Your task to perform on an android device: change the clock display to analog Image 0: 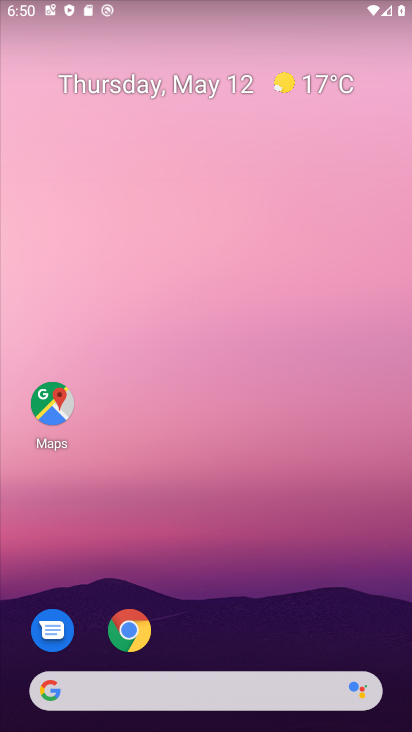
Step 0: drag from (358, 632) to (1, 320)
Your task to perform on an android device: change the clock display to analog Image 1: 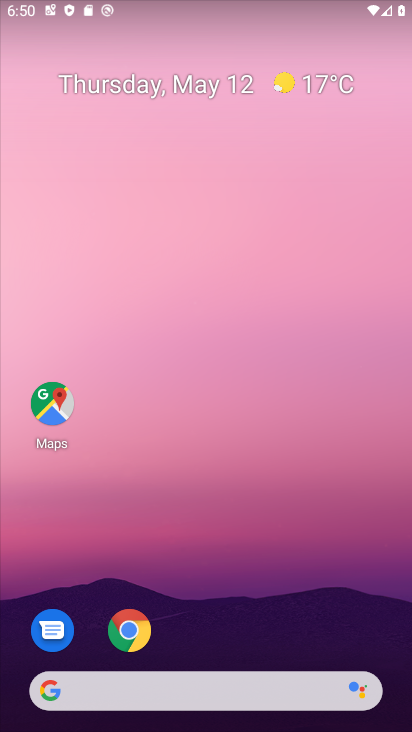
Step 1: drag from (350, 604) to (203, 91)
Your task to perform on an android device: change the clock display to analog Image 2: 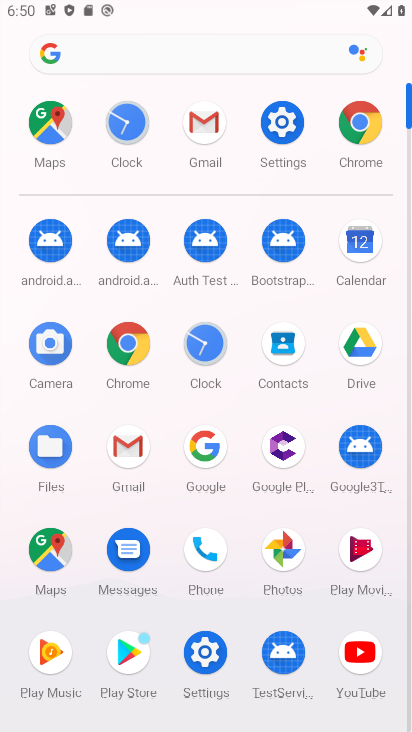
Step 2: click (137, 136)
Your task to perform on an android device: change the clock display to analog Image 3: 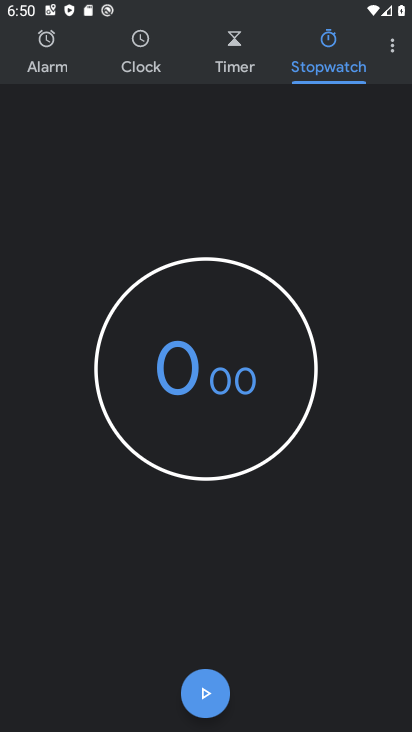
Step 3: click (386, 44)
Your task to perform on an android device: change the clock display to analog Image 4: 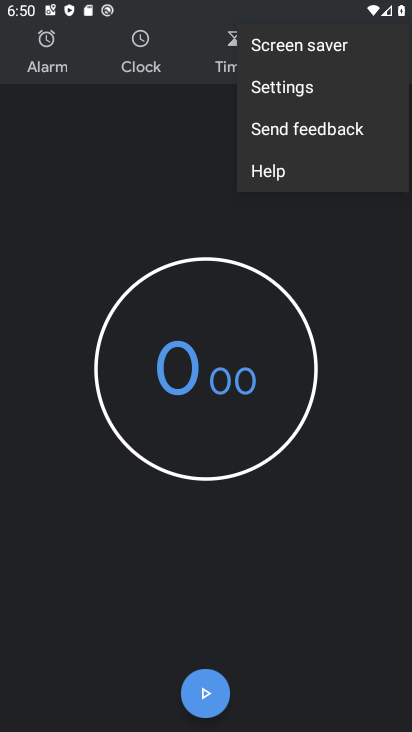
Step 4: click (336, 97)
Your task to perform on an android device: change the clock display to analog Image 5: 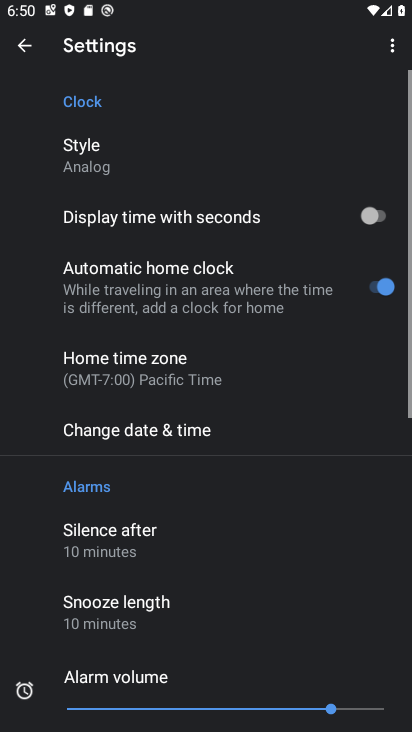
Step 5: click (117, 173)
Your task to perform on an android device: change the clock display to analog Image 6: 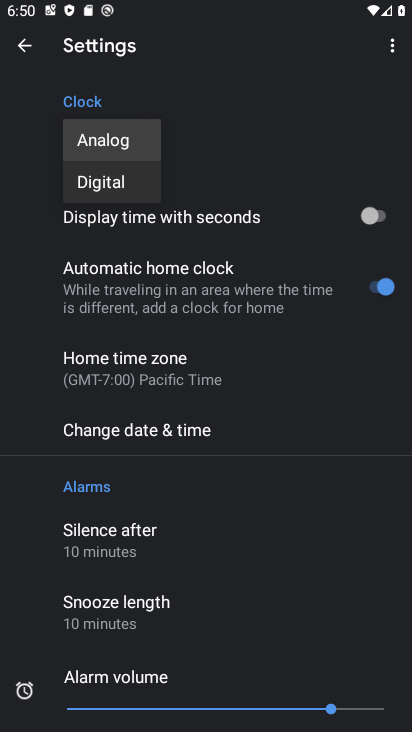
Step 6: click (141, 154)
Your task to perform on an android device: change the clock display to analog Image 7: 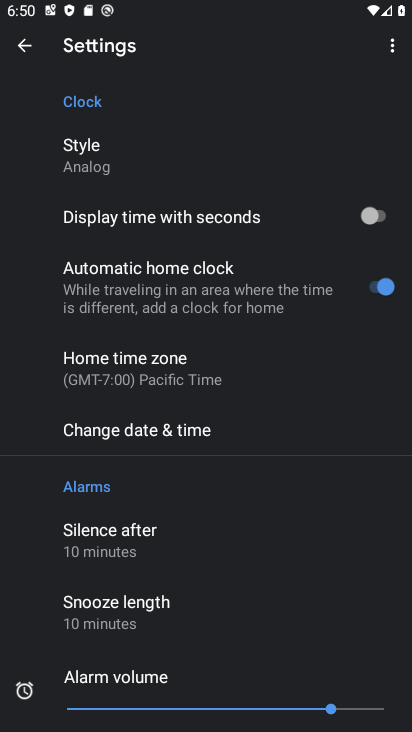
Step 7: task complete